Your task to perform on an android device: Go to privacy settings Image 0: 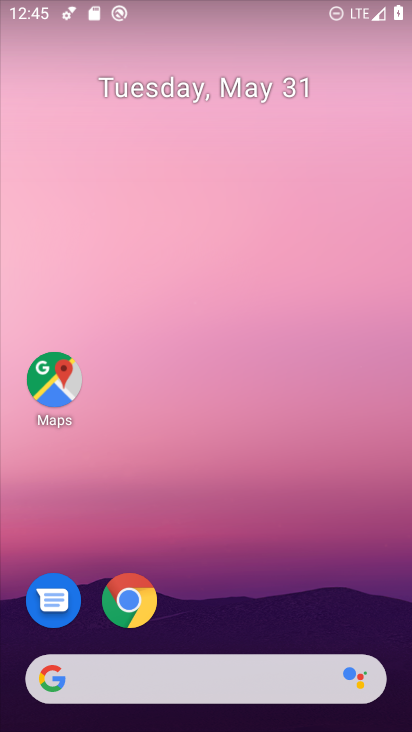
Step 0: drag from (240, 696) to (239, 131)
Your task to perform on an android device: Go to privacy settings Image 1: 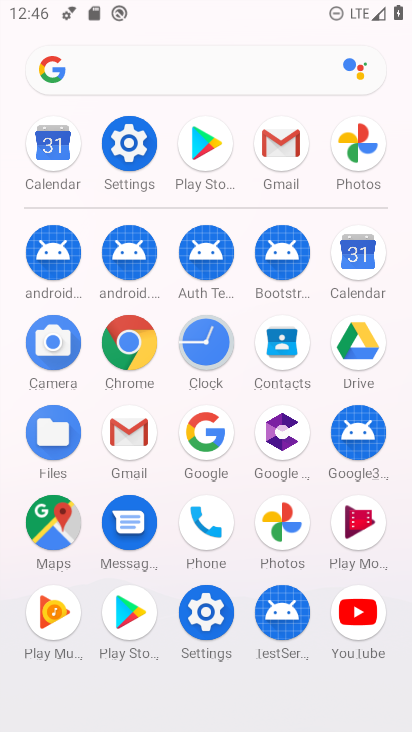
Step 1: click (133, 148)
Your task to perform on an android device: Go to privacy settings Image 2: 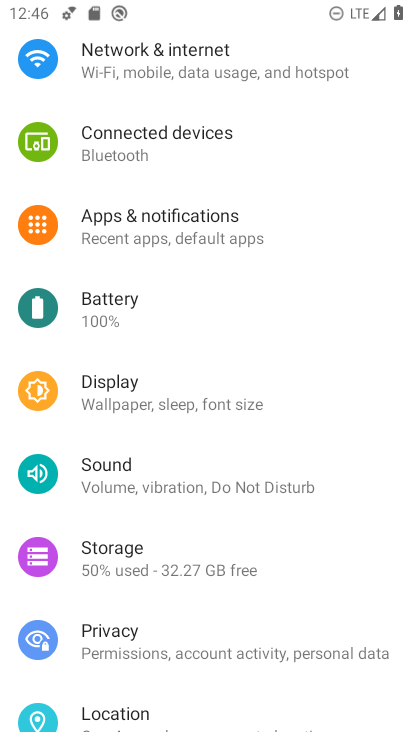
Step 2: click (113, 619)
Your task to perform on an android device: Go to privacy settings Image 3: 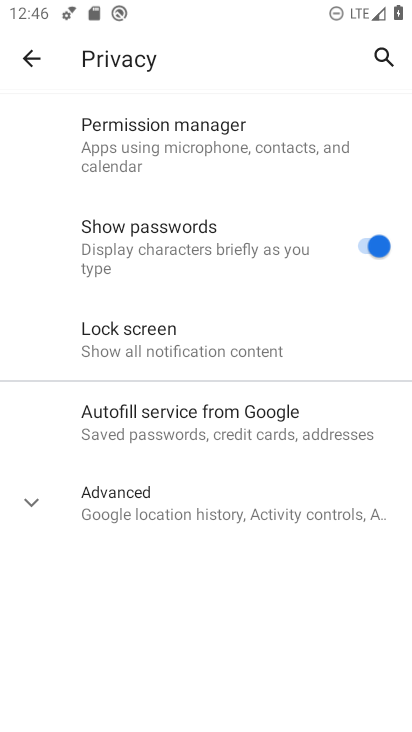
Step 3: task complete